Your task to perform on an android device: turn on airplane mode Image 0: 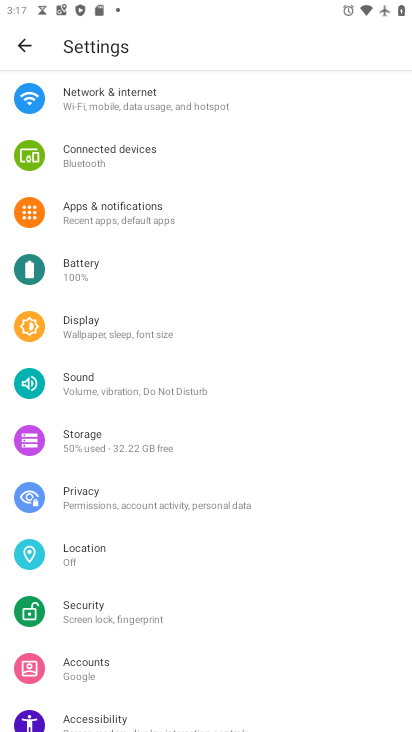
Step 0: click (139, 98)
Your task to perform on an android device: turn on airplane mode Image 1: 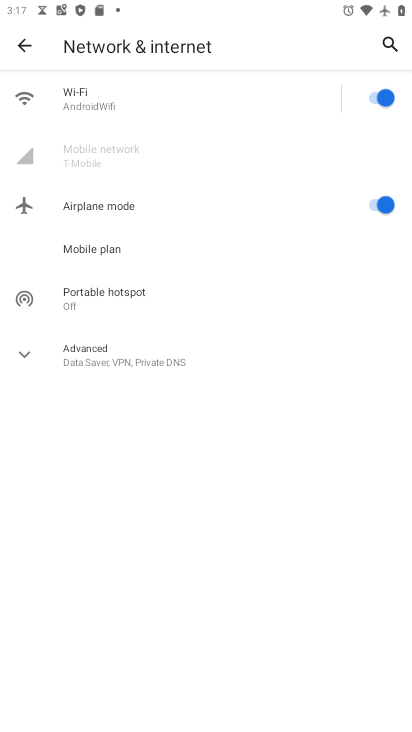
Step 1: task complete